Your task to perform on an android device: turn off location history Image 0: 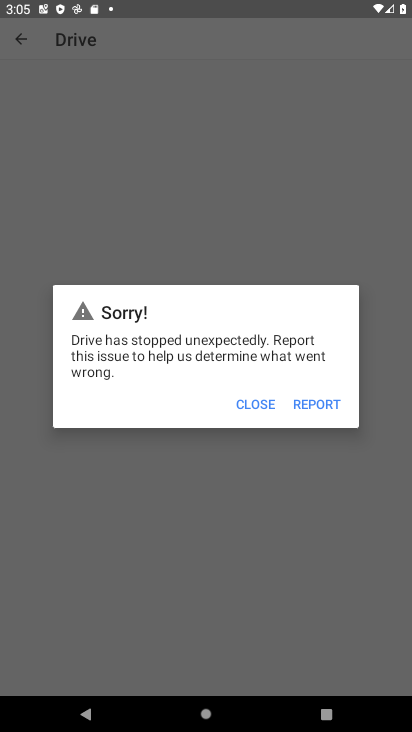
Step 0: press home button
Your task to perform on an android device: turn off location history Image 1: 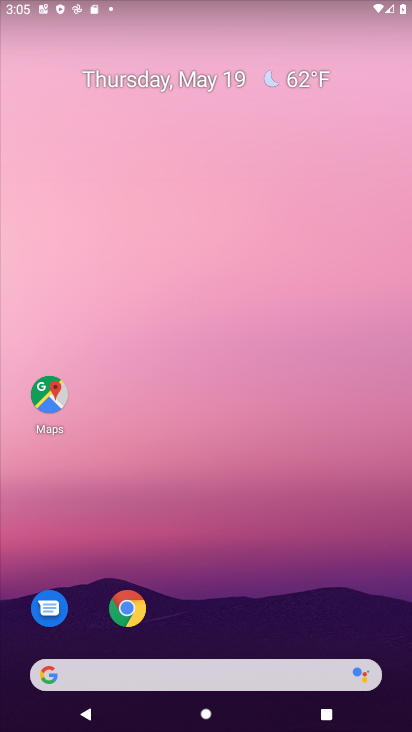
Step 1: drag from (252, 590) to (155, 10)
Your task to perform on an android device: turn off location history Image 2: 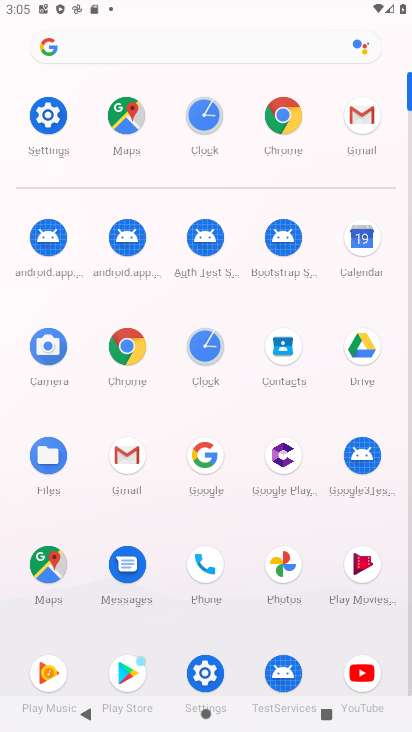
Step 2: click (47, 125)
Your task to perform on an android device: turn off location history Image 3: 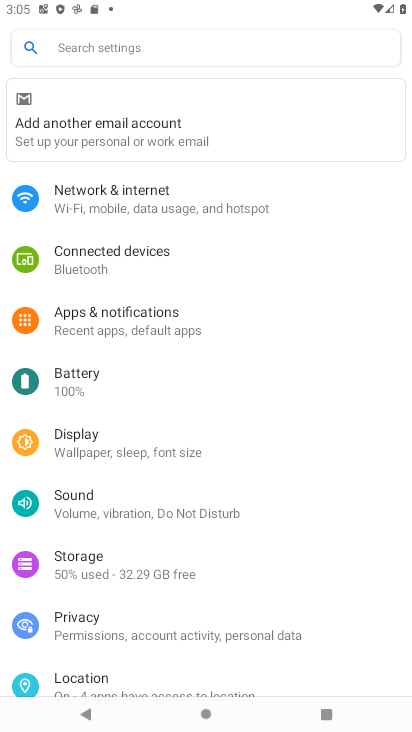
Step 3: click (182, 681)
Your task to perform on an android device: turn off location history Image 4: 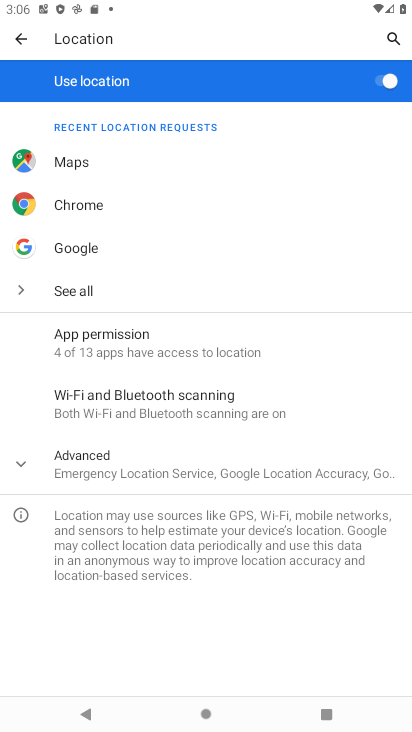
Step 4: click (187, 457)
Your task to perform on an android device: turn off location history Image 5: 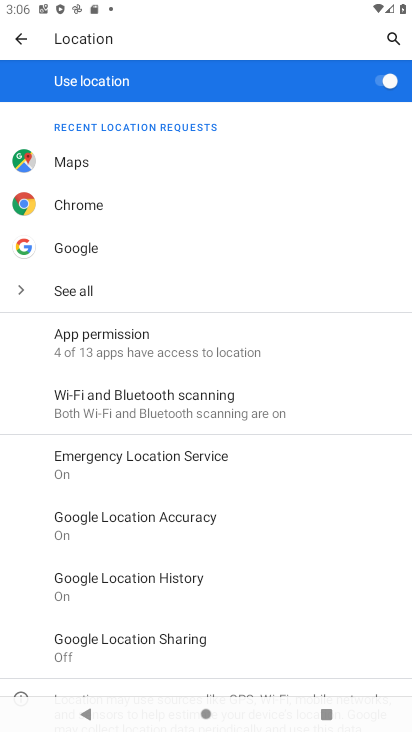
Step 5: click (199, 573)
Your task to perform on an android device: turn off location history Image 6: 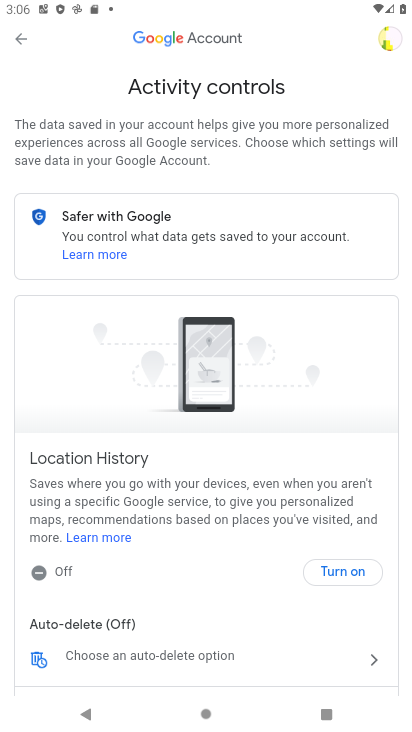
Step 6: click (80, 573)
Your task to perform on an android device: turn off location history Image 7: 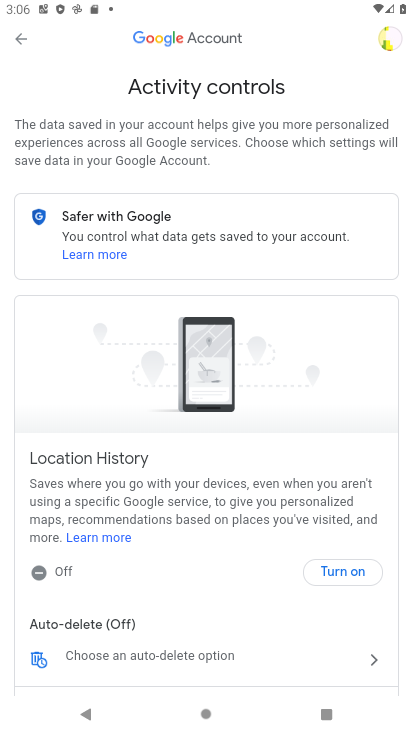
Step 7: click (54, 574)
Your task to perform on an android device: turn off location history Image 8: 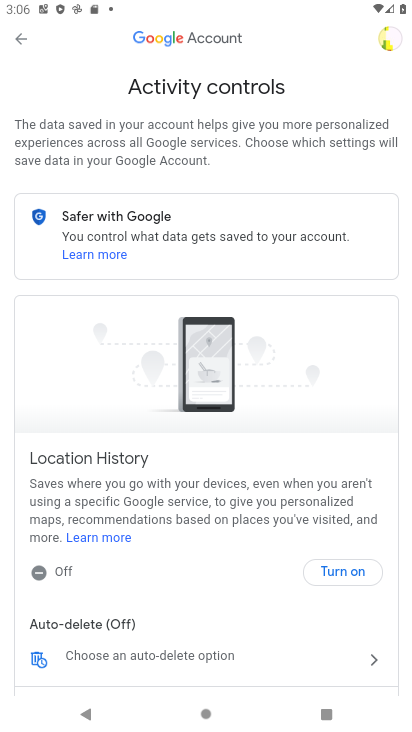
Step 8: click (54, 574)
Your task to perform on an android device: turn off location history Image 9: 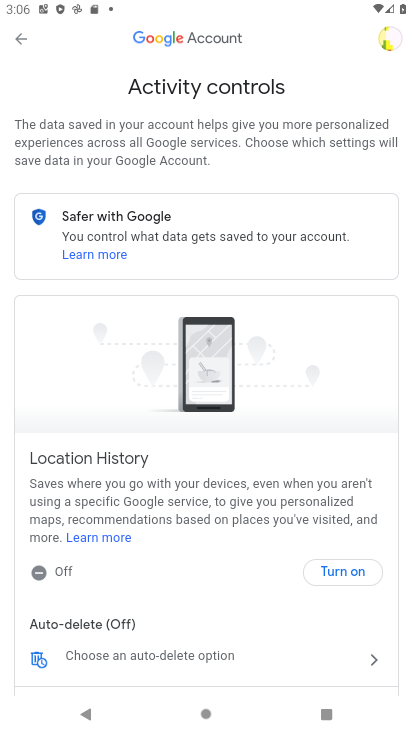
Step 9: task complete